Your task to perform on an android device: Go to Amazon Image 0: 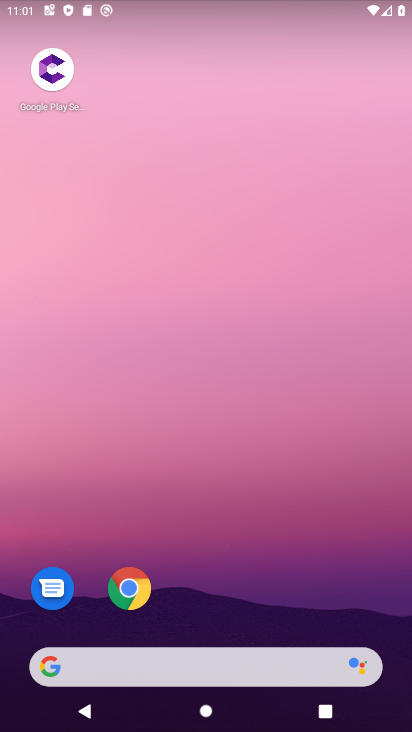
Step 0: click (122, 582)
Your task to perform on an android device: Go to Amazon Image 1: 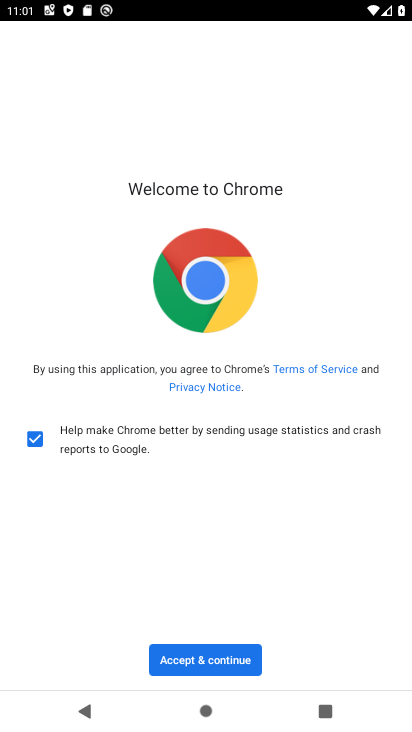
Step 1: click (193, 651)
Your task to perform on an android device: Go to Amazon Image 2: 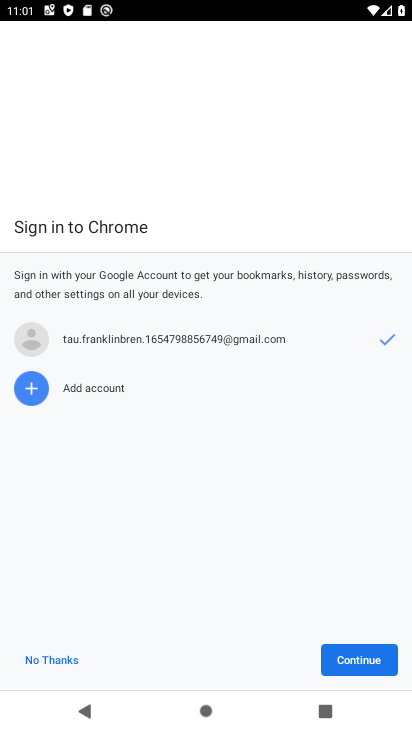
Step 2: click (348, 648)
Your task to perform on an android device: Go to Amazon Image 3: 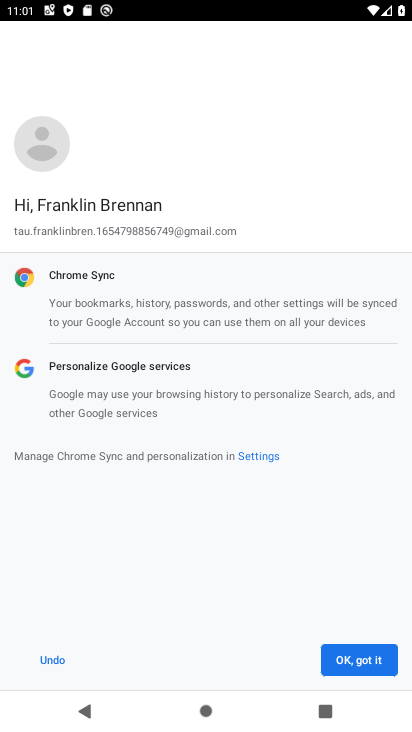
Step 3: click (348, 648)
Your task to perform on an android device: Go to Amazon Image 4: 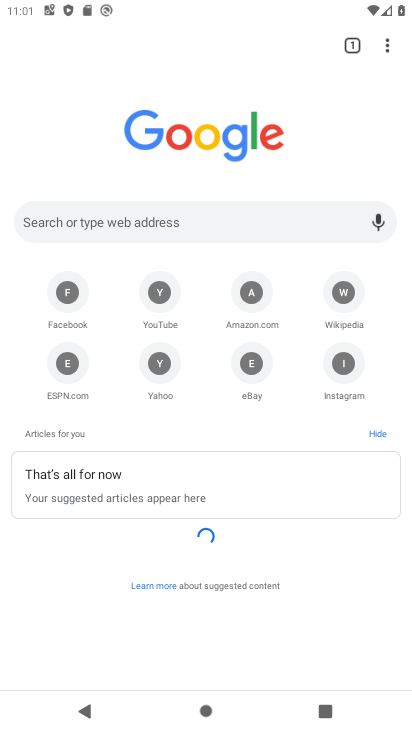
Step 4: click (87, 231)
Your task to perform on an android device: Go to Amazon Image 5: 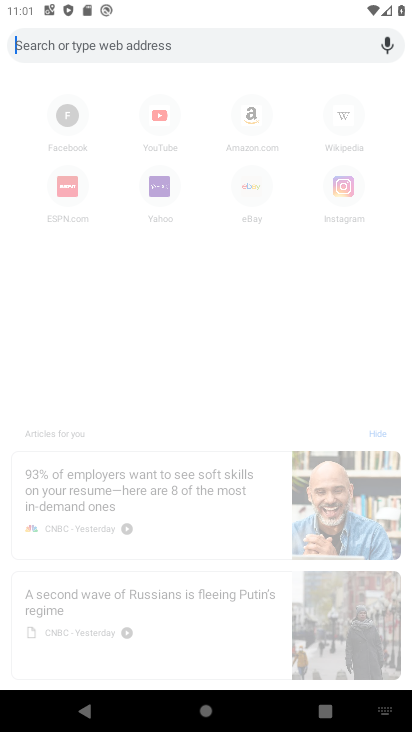
Step 5: type "amazon"
Your task to perform on an android device: Go to Amazon Image 6: 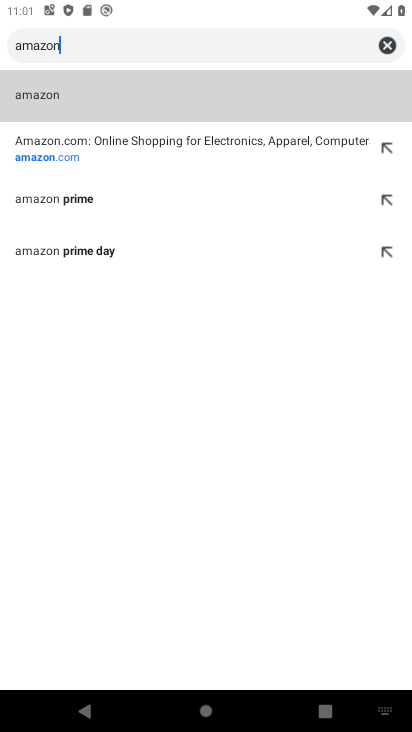
Step 6: click (50, 91)
Your task to perform on an android device: Go to Amazon Image 7: 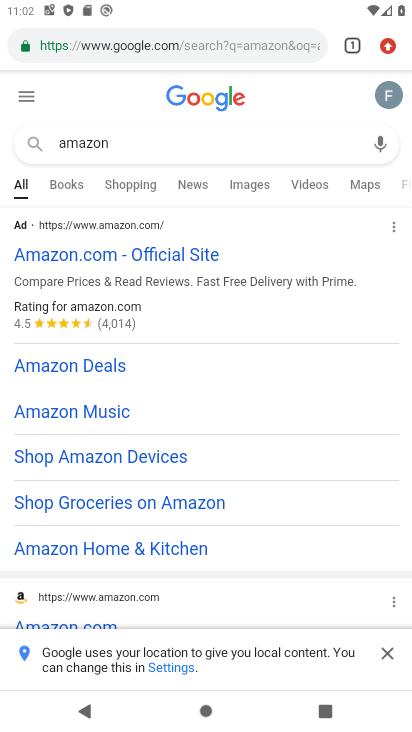
Step 7: click (81, 254)
Your task to perform on an android device: Go to Amazon Image 8: 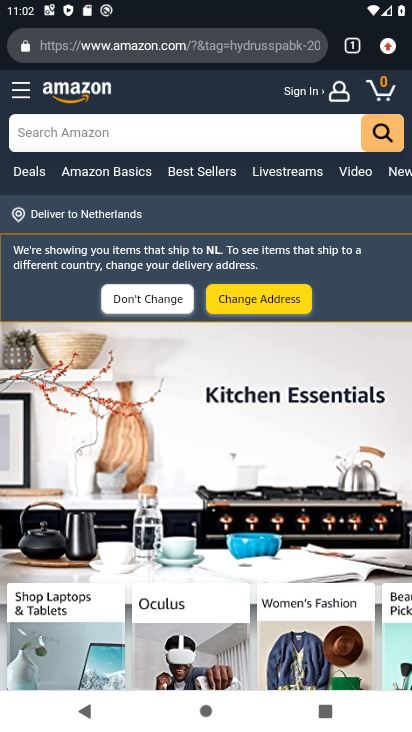
Step 8: task complete